Your task to perform on an android device: set an alarm Image 0: 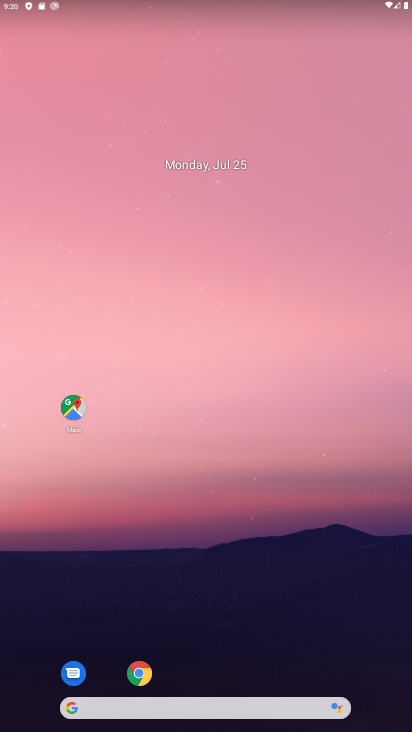
Step 0: drag from (214, 687) to (190, 41)
Your task to perform on an android device: set an alarm Image 1: 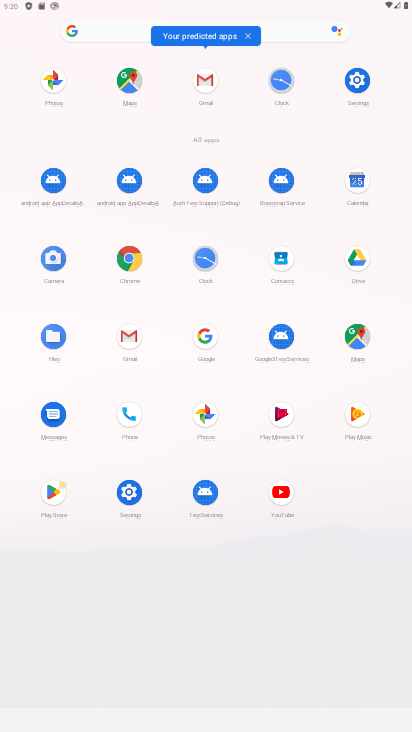
Step 1: click (204, 262)
Your task to perform on an android device: set an alarm Image 2: 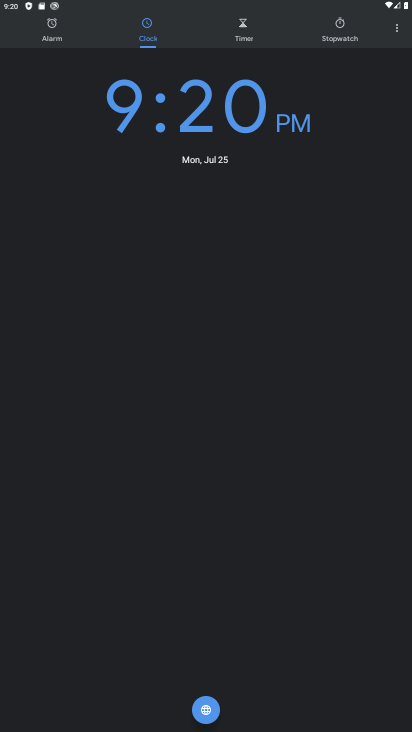
Step 2: click (51, 12)
Your task to perform on an android device: set an alarm Image 3: 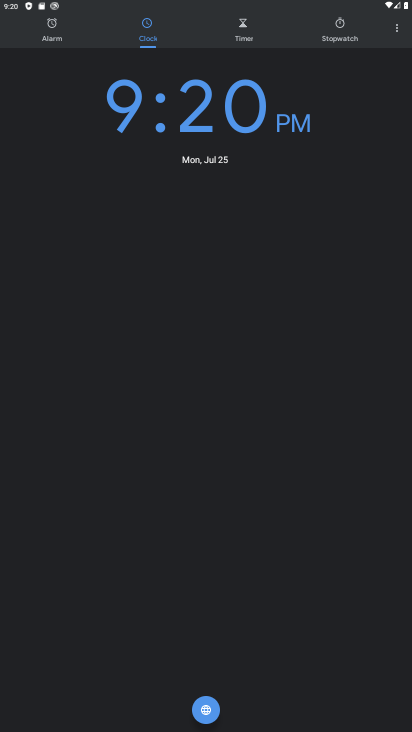
Step 3: click (51, 23)
Your task to perform on an android device: set an alarm Image 4: 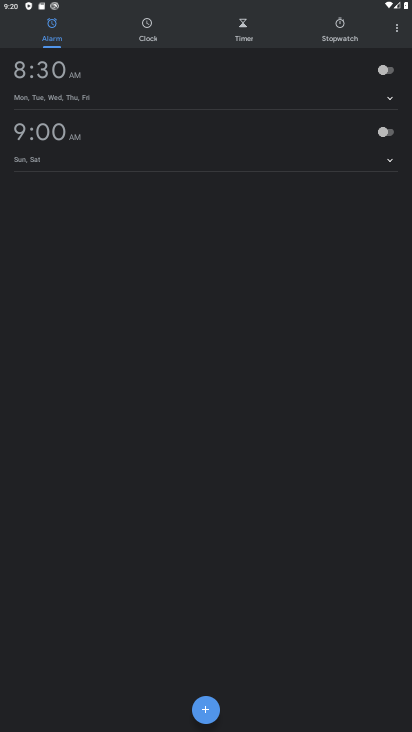
Step 4: click (202, 716)
Your task to perform on an android device: set an alarm Image 5: 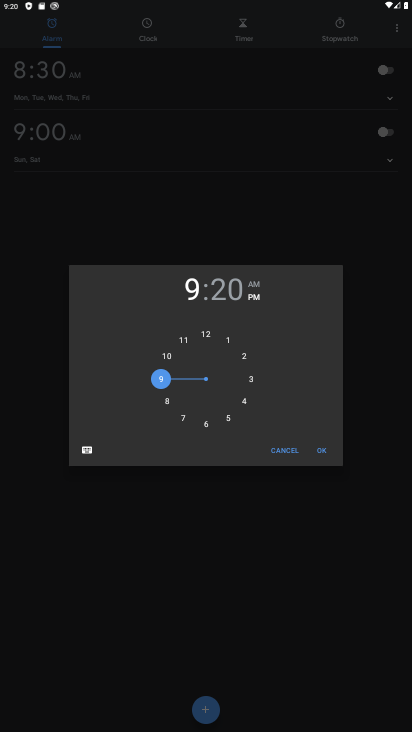
Step 5: click (317, 450)
Your task to perform on an android device: set an alarm Image 6: 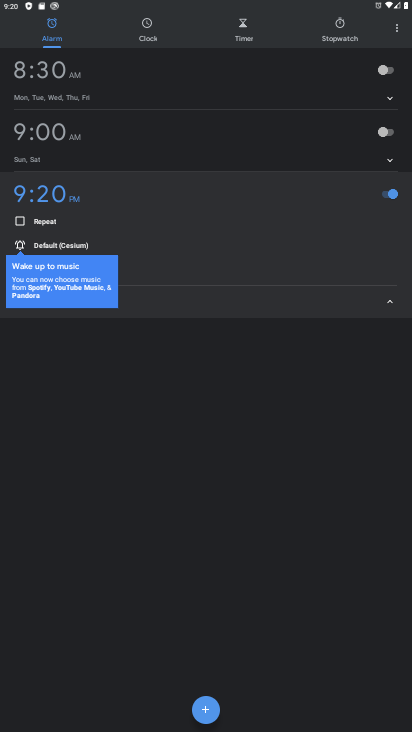
Step 6: task complete